Your task to perform on an android device: turn off wifi Image 0: 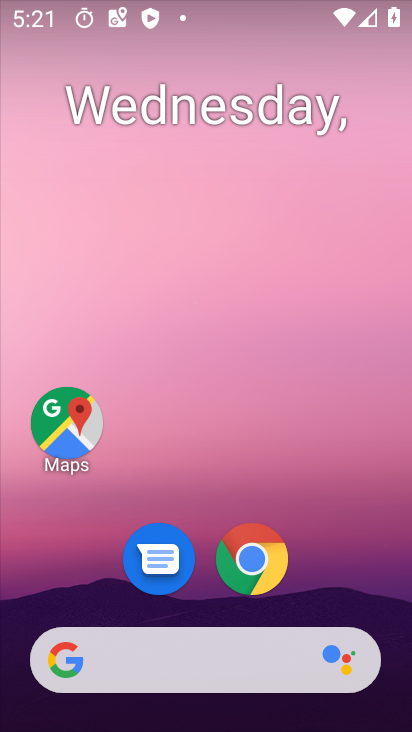
Step 0: drag from (335, 388) to (299, 188)
Your task to perform on an android device: turn off wifi Image 1: 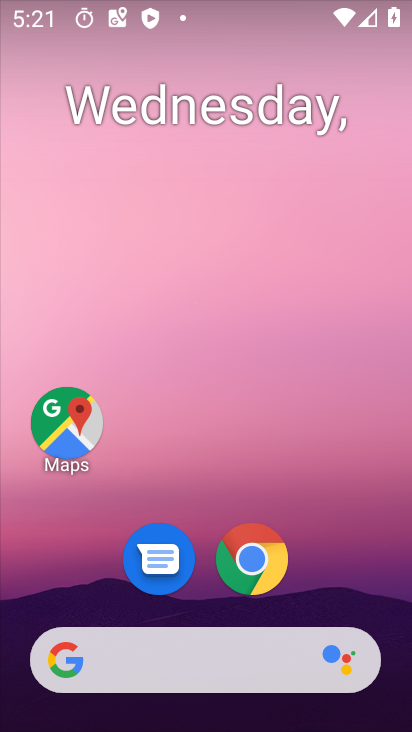
Step 1: drag from (334, 505) to (270, 18)
Your task to perform on an android device: turn off wifi Image 2: 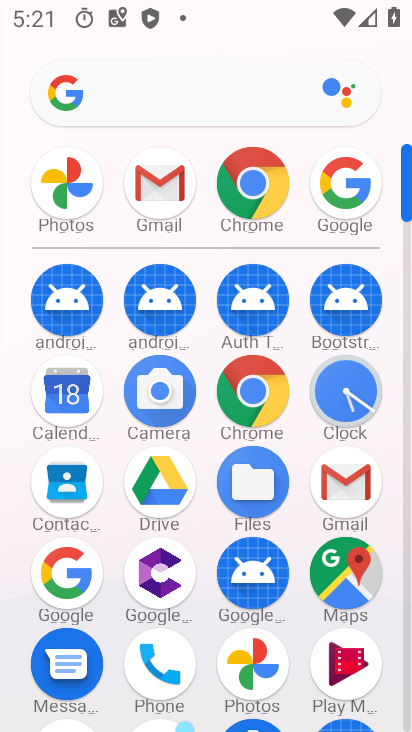
Step 2: drag from (343, 679) to (302, 209)
Your task to perform on an android device: turn off wifi Image 3: 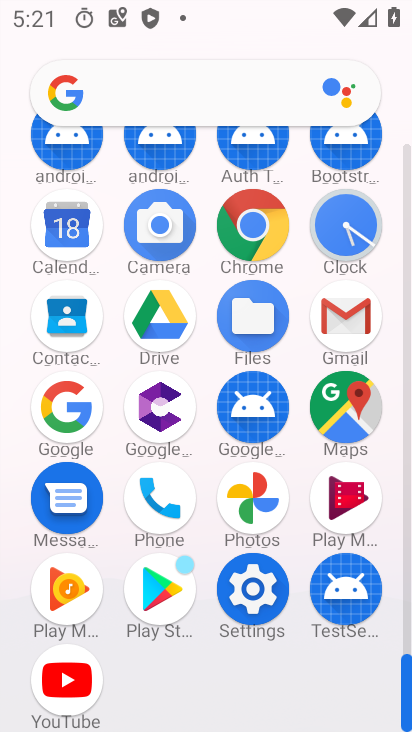
Step 3: click (248, 573)
Your task to perform on an android device: turn off wifi Image 4: 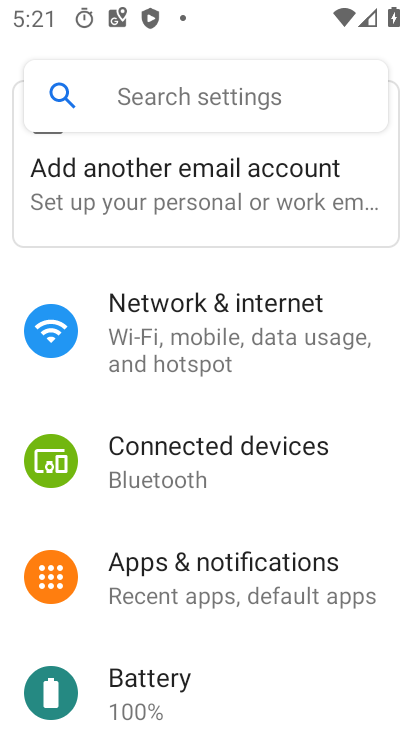
Step 4: click (235, 311)
Your task to perform on an android device: turn off wifi Image 5: 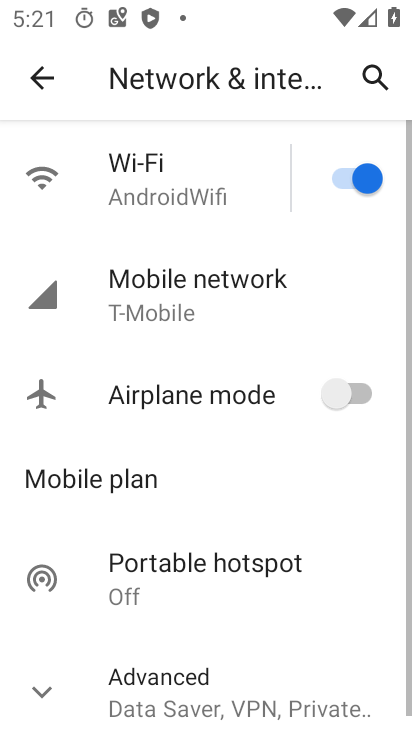
Step 5: click (154, 164)
Your task to perform on an android device: turn off wifi Image 6: 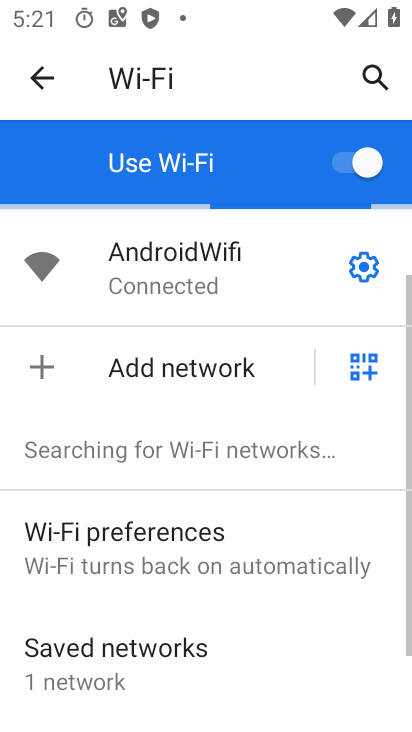
Step 6: click (359, 157)
Your task to perform on an android device: turn off wifi Image 7: 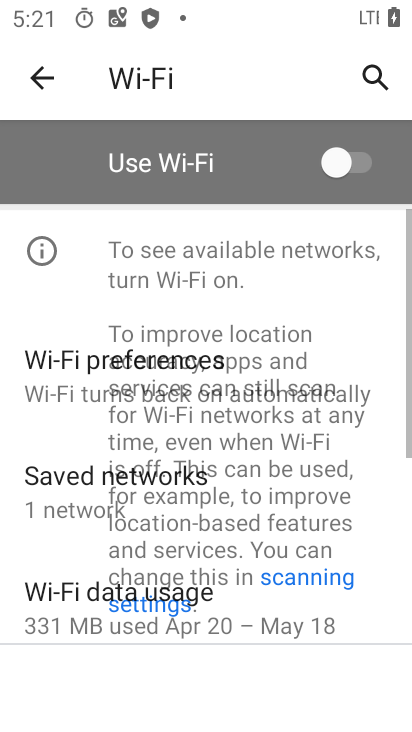
Step 7: task complete